Your task to perform on an android device: toggle airplane mode Image 0: 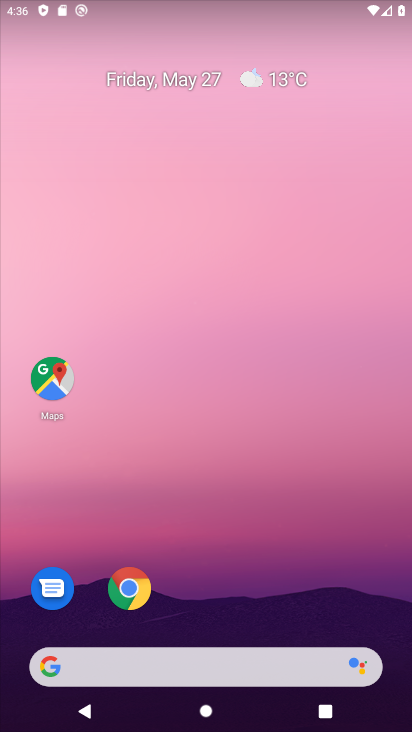
Step 0: drag from (356, 11) to (240, 647)
Your task to perform on an android device: toggle airplane mode Image 1: 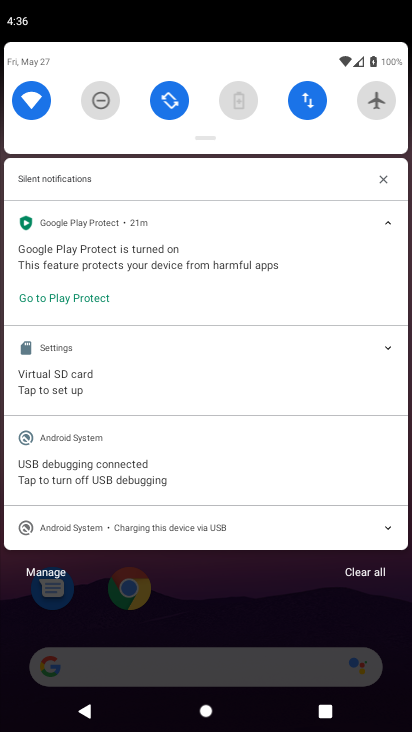
Step 1: click (374, 91)
Your task to perform on an android device: toggle airplane mode Image 2: 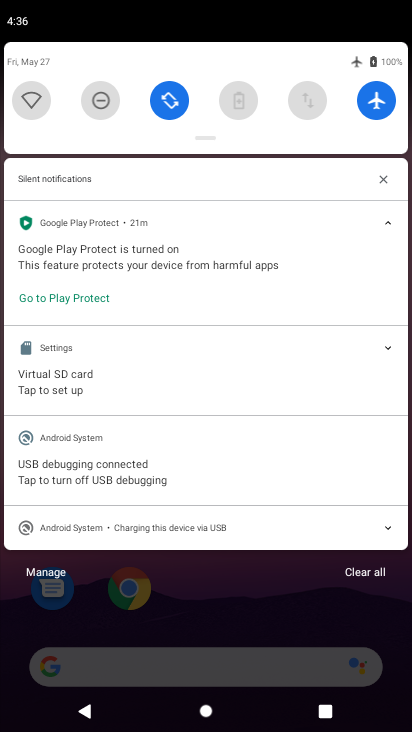
Step 2: task complete